Your task to perform on an android device: change the clock display to analog Image 0: 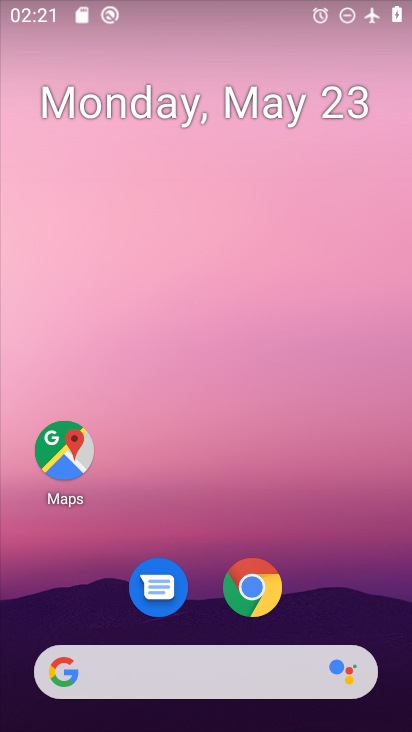
Step 0: drag from (365, 582) to (339, 117)
Your task to perform on an android device: change the clock display to analog Image 1: 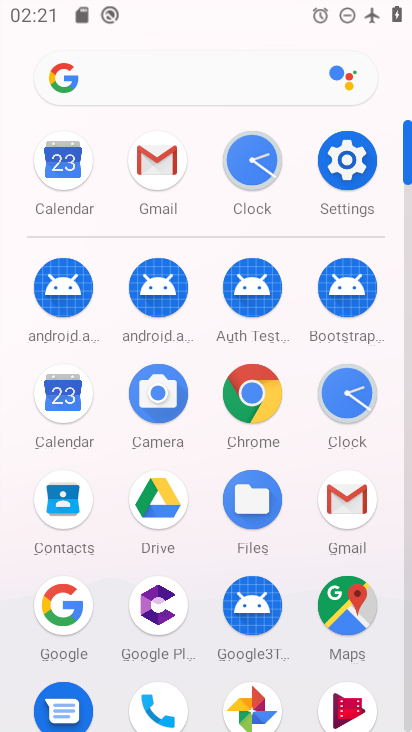
Step 1: click (350, 156)
Your task to perform on an android device: change the clock display to analog Image 2: 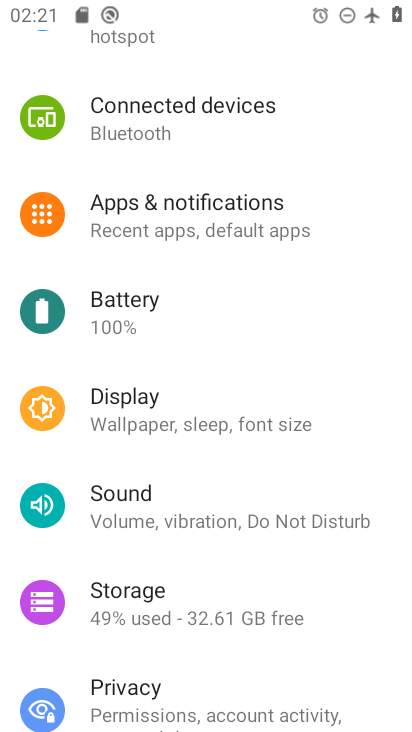
Step 2: press home button
Your task to perform on an android device: change the clock display to analog Image 3: 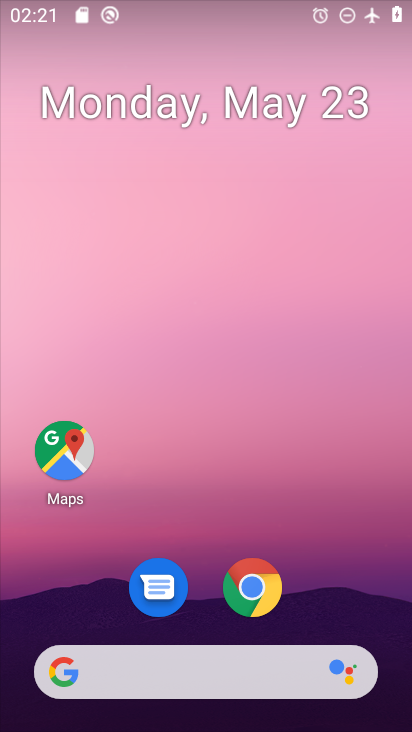
Step 3: drag from (329, 564) to (355, 211)
Your task to perform on an android device: change the clock display to analog Image 4: 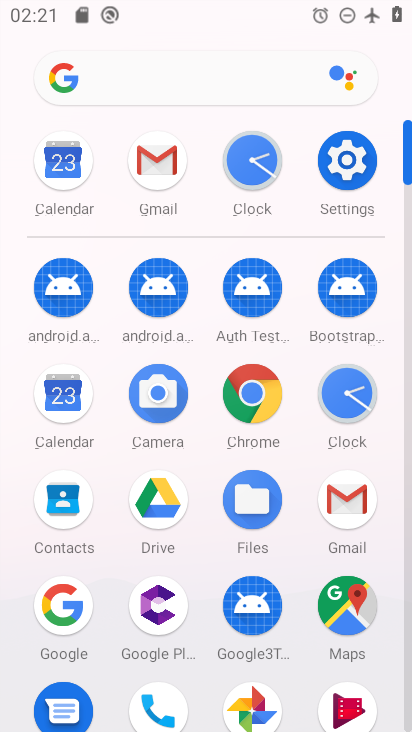
Step 4: click (328, 396)
Your task to perform on an android device: change the clock display to analog Image 5: 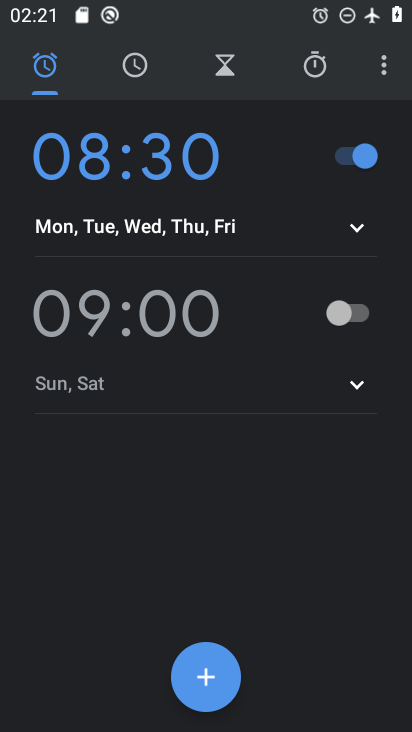
Step 5: click (382, 79)
Your task to perform on an android device: change the clock display to analog Image 6: 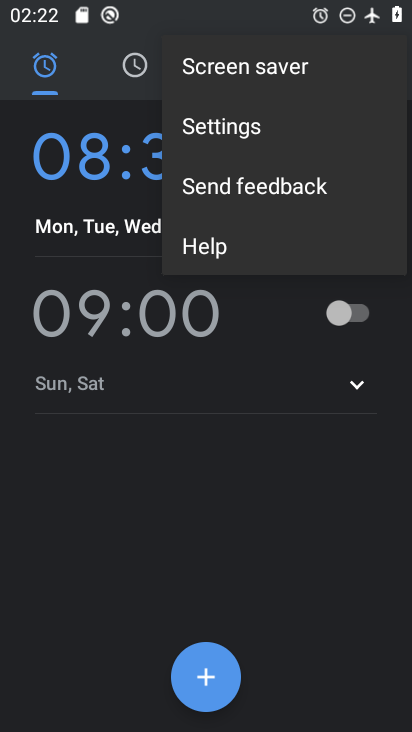
Step 6: click (298, 131)
Your task to perform on an android device: change the clock display to analog Image 7: 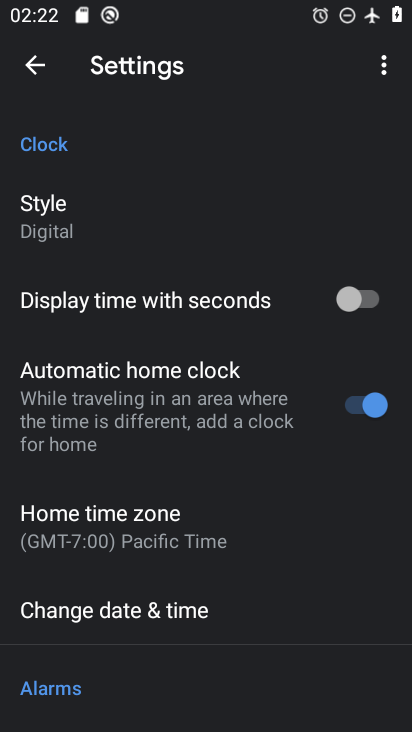
Step 7: click (214, 259)
Your task to perform on an android device: change the clock display to analog Image 8: 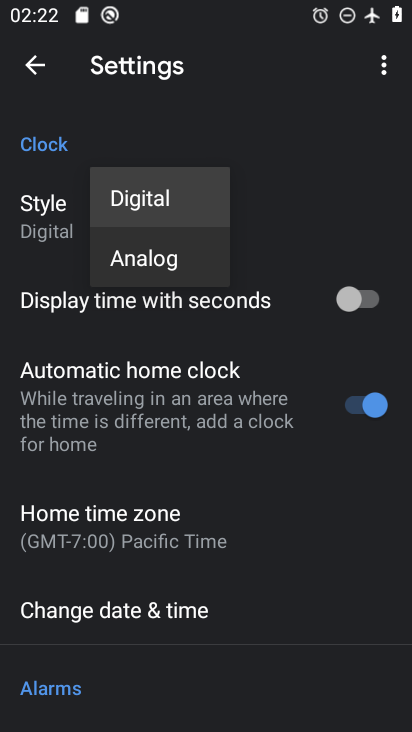
Step 8: click (192, 267)
Your task to perform on an android device: change the clock display to analog Image 9: 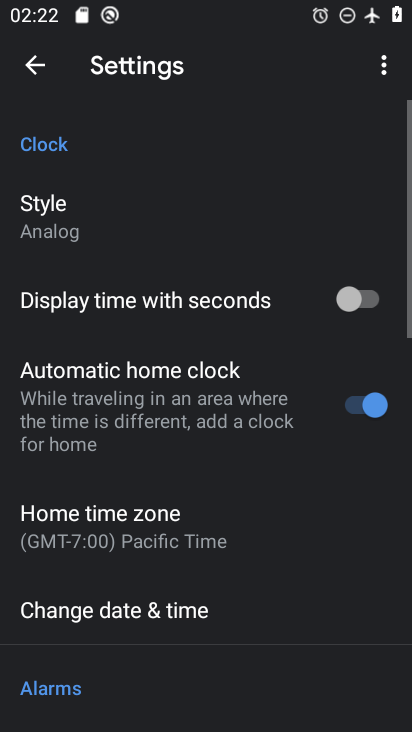
Step 9: task complete